Your task to perform on an android device: When is my next appointment? Image 0: 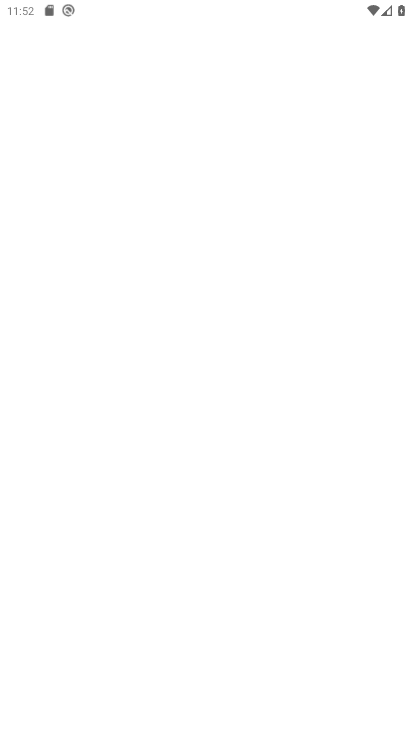
Step 0: drag from (195, 639) to (176, 206)
Your task to perform on an android device: When is my next appointment? Image 1: 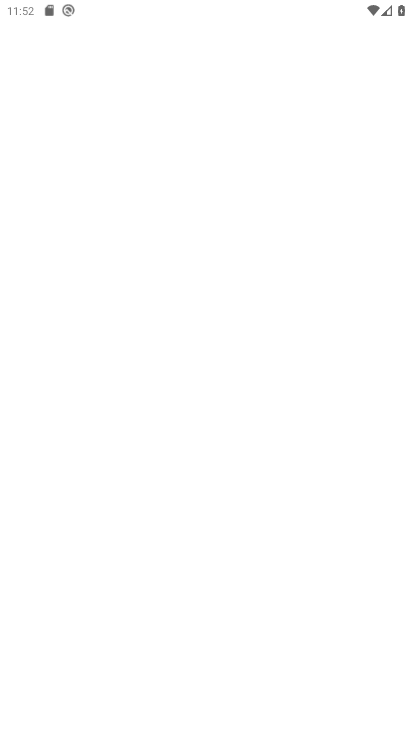
Step 1: press home button
Your task to perform on an android device: When is my next appointment? Image 2: 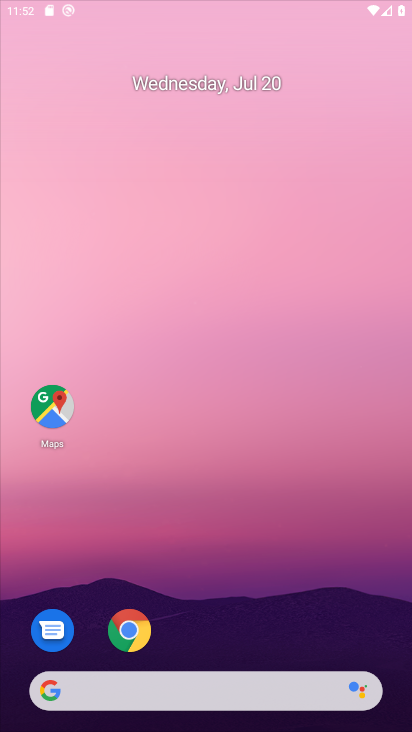
Step 2: drag from (193, 612) to (255, 43)
Your task to perform on an android device: When is my next appointment? Image 3: 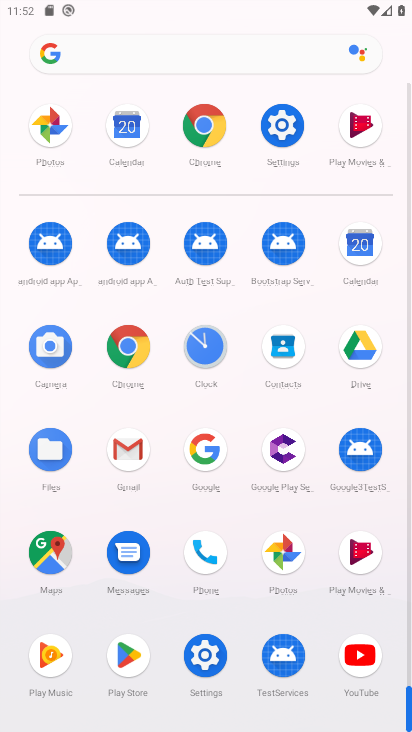
Step 3: click (363, 249)
Your task to perform on an android device: When is my next appointment? Image 4: 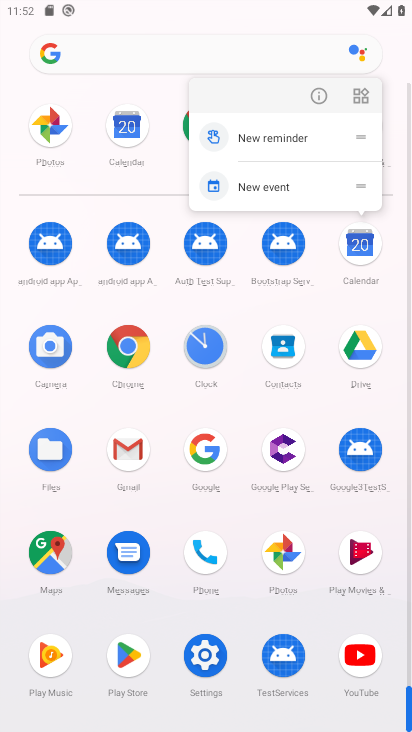
Step 4: click (310, 93)
Your task to perform on an android device: When is my next appointment? Image 5: 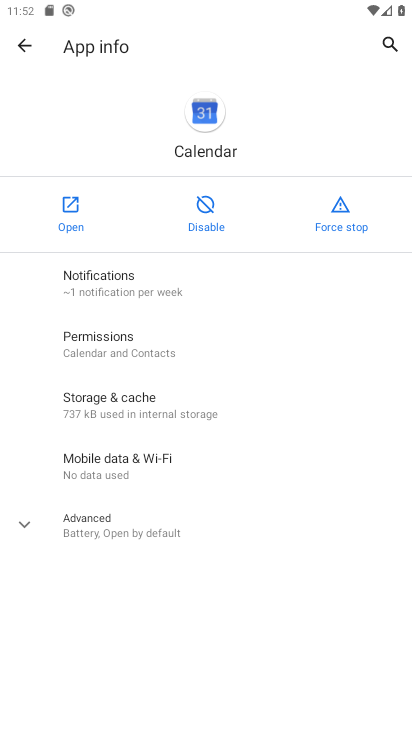
Step 5: click (77, 208)
Your task to perform on an android device: When is my next appointment? Image 6: 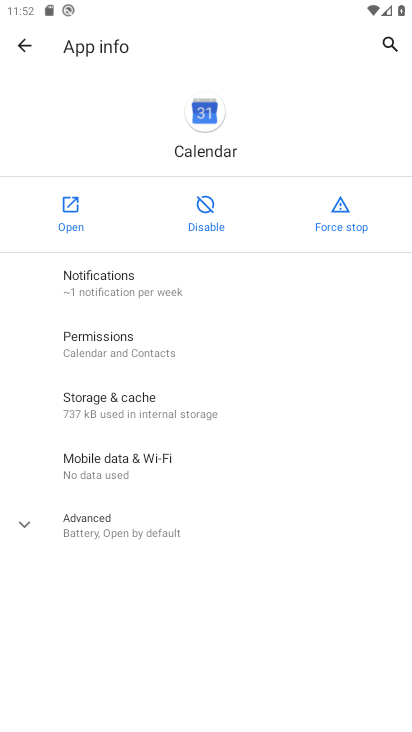
Step 6: click (77, 208)
Your task to perform on an android device: When is my next appointment? Image 7: 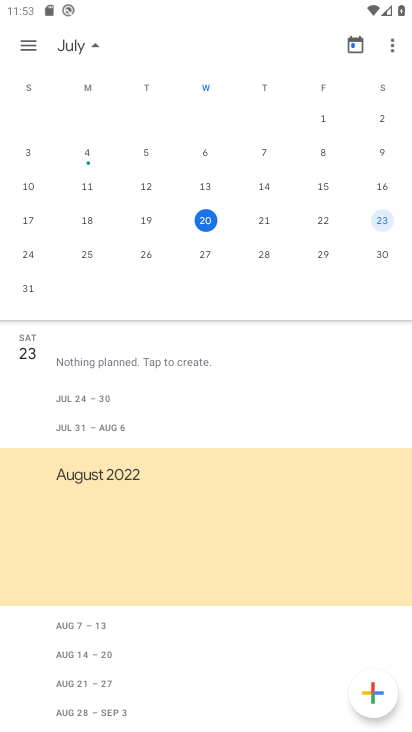
Step 7: click (202, 216)
Your task to perform on an android device: When is my next appointment? Image 8: 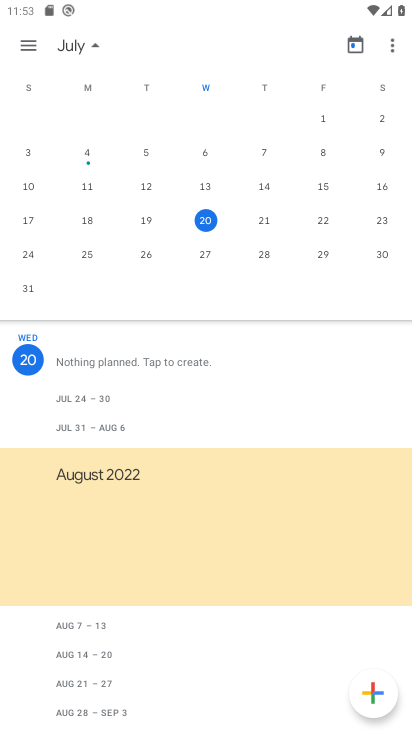
Step 8: task complete